Your task to perform on an android device: change the clock display to show seconds Image 0: 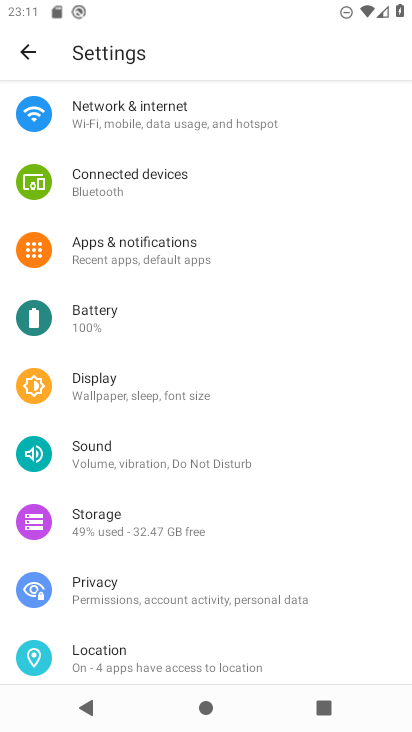
Step 0: drag from (284, 620) to (268, 132)
Your task to perform on an android device: change the clock display to show seconds Image 1: 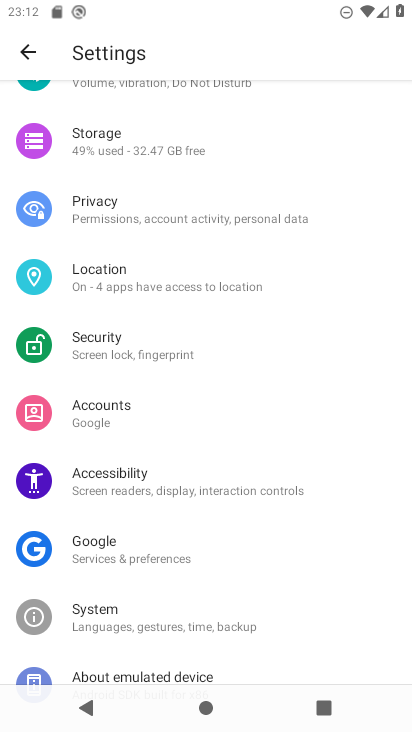
Step 1: press home button
Your task to perform on an android device: change the clock display to show seconds Image 2: 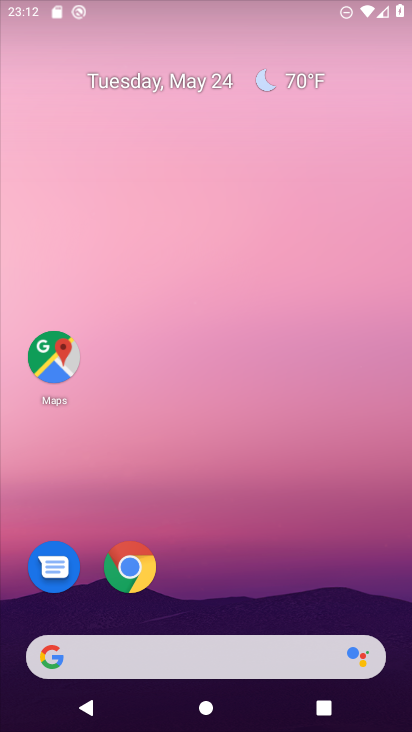
Step 2: drag from (320, 531) to (232, 6)
Your task to perform on an android device: change the clock display to show seconds Image 3: 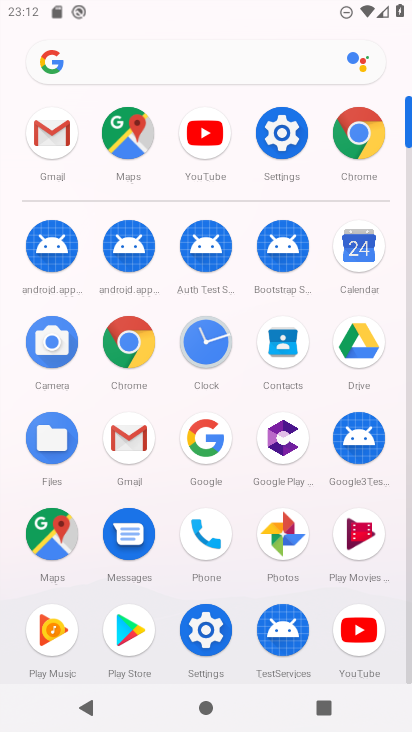
Step 3: click (217, 348)
Your task to perform on an android device: change the clock display to show seconds Image 4: 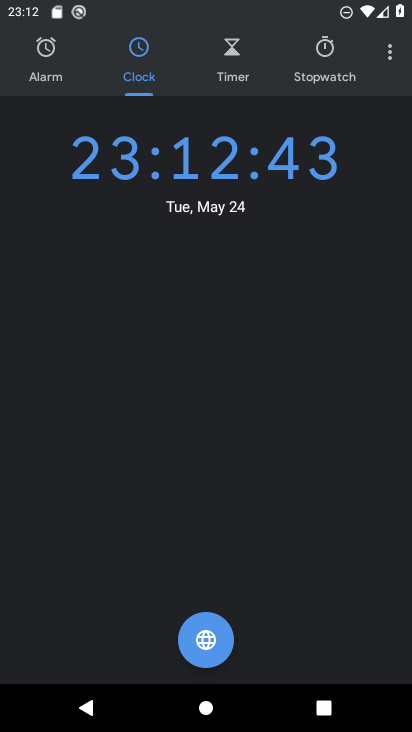
Step 4: click (387, 41)
Your task to perform on an android device: change the clock display to show seconds Image 5: 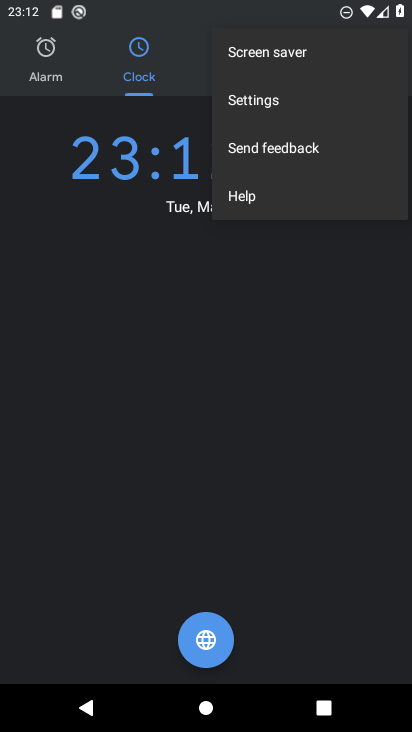
Step 5: click (330, 99)
Your task to perform on an android device: change the clock display to show seconds Image 6: 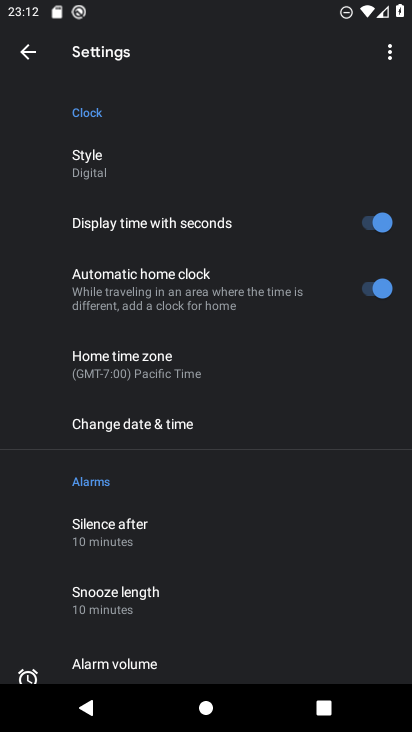
Step 6: task complete